Your task to perform on an android device: choose inbox layout in the gmail app Image 0: 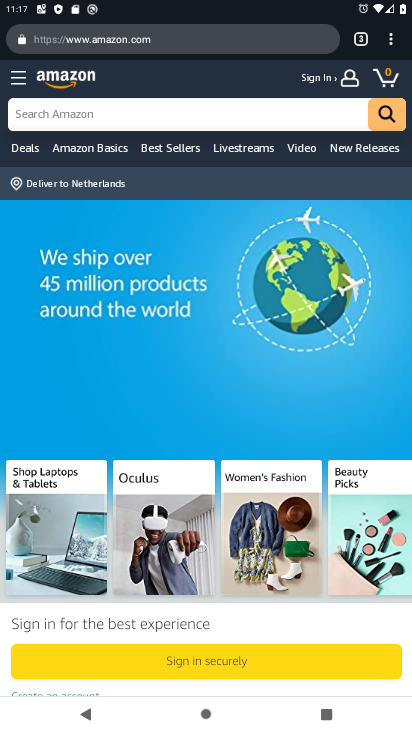
Step 0: drag from (219, 580) to (204, 185)
Your task to perform on an android device: choose inbox layout in the gmail app Image 1: 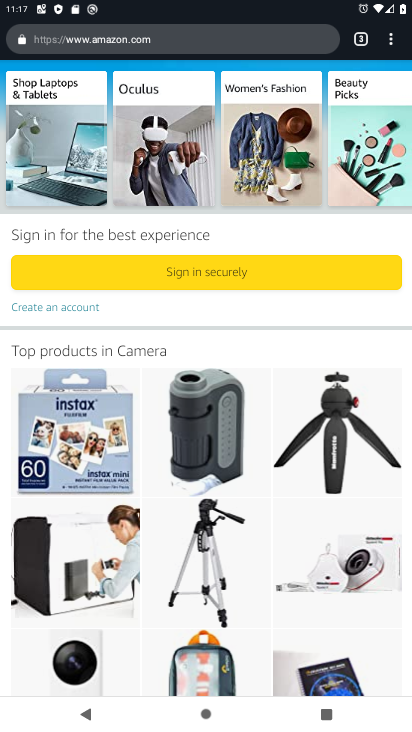
Step 1: click (392, 43)
Your task to perform on an android device: choose inbox layout in the gmail app Image 2: 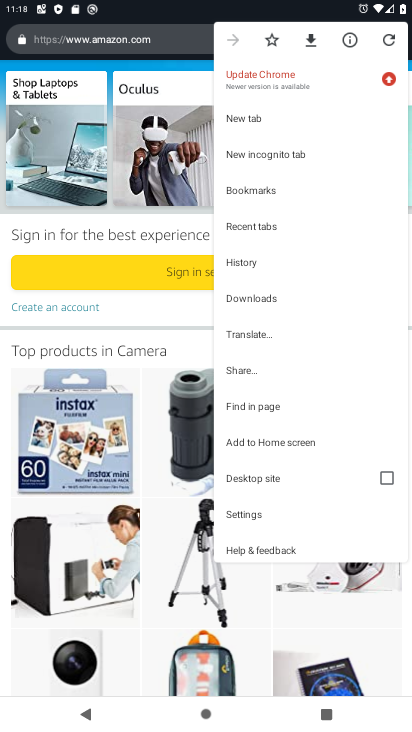
Step 2: press home button
Your task to perform on an android device: choose inbox layout in the gmail app Image 3: 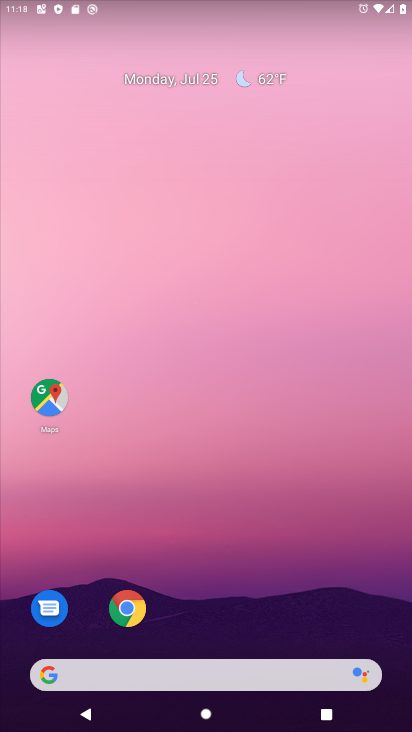
Step 3: drag from (194, 491) to (24, 347)
Your task to perform on an android device: choose inbox layout in the gmail app Image 4: 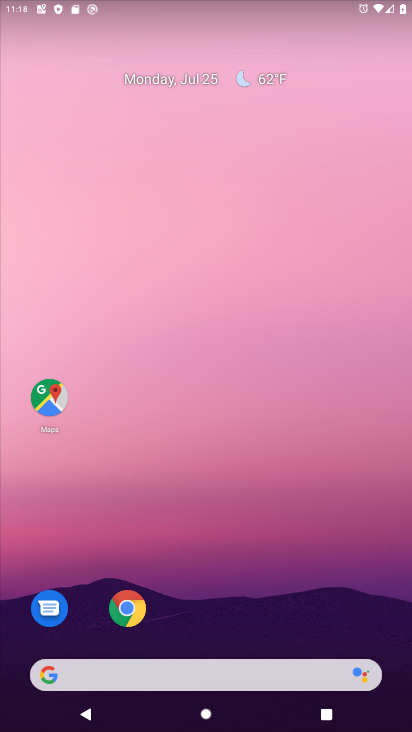
Step 4: drag from (243, 635) to (196, 20)
Your task to perform on an android device: choose inbox layout in the gmail app Image 5: 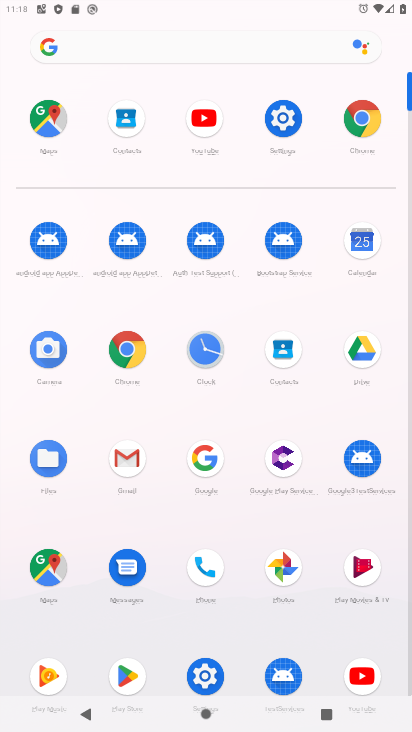
Step 5: click (133, 461)
Your task to perform on an android device: choose inbox layout in the gmail app Image 6: 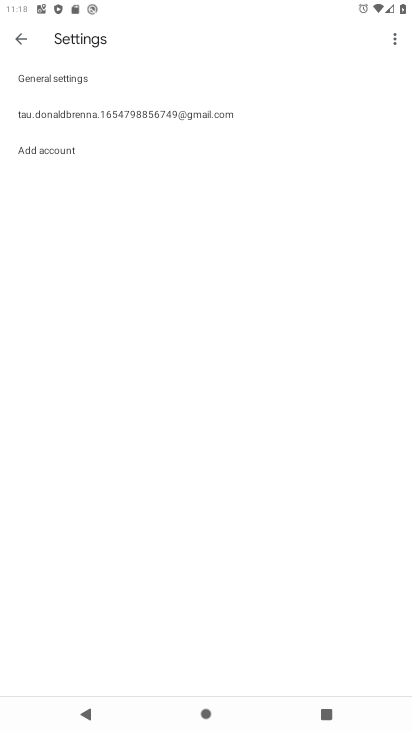
Step 6: click (96, 115)
Your task to perform on an android device: choose inbox layout in the gmail app Image 7: 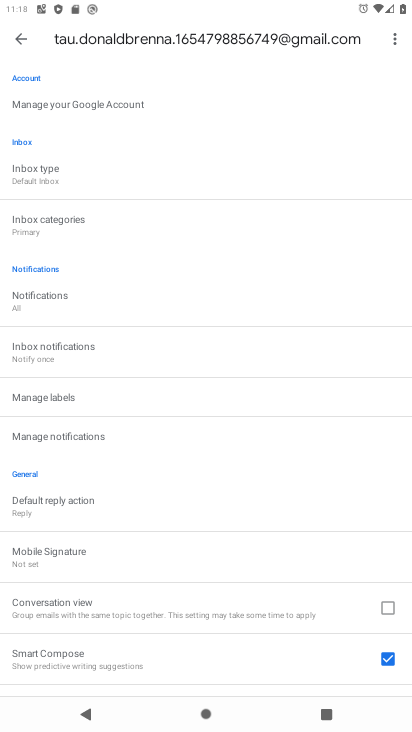
Step 7: click (61, 175)
Your task to perform on an android device: choose inbox layout in the gmail app Image 8: 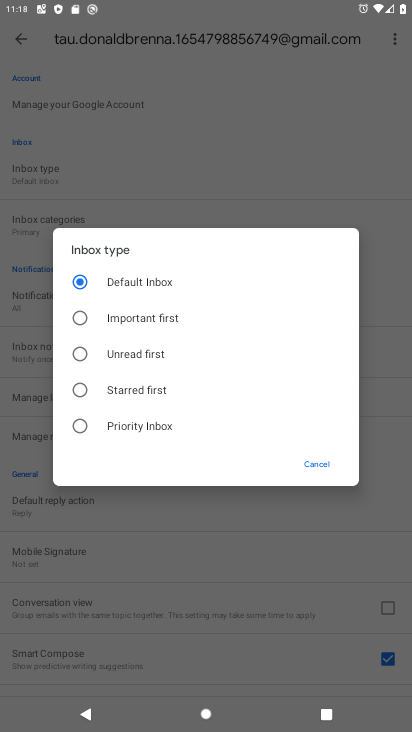
Step 8: click (102, 426)
Your task to perform on an android device: choose inbox layout in the gmail app Image 9: 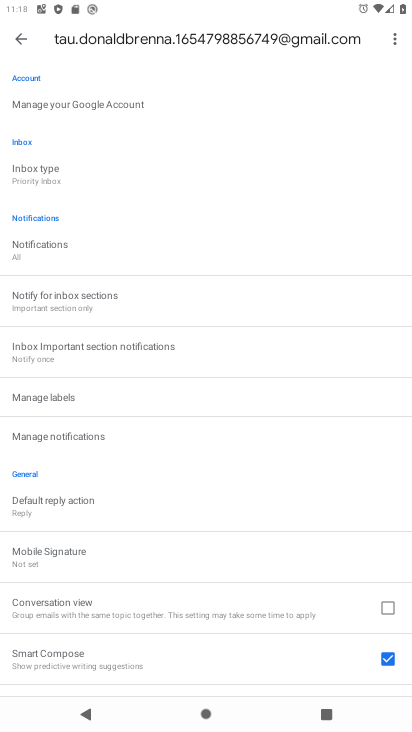
Step 9: task complete